Your task to perform on an android device: Show me popular games on the Play Store Image 0: 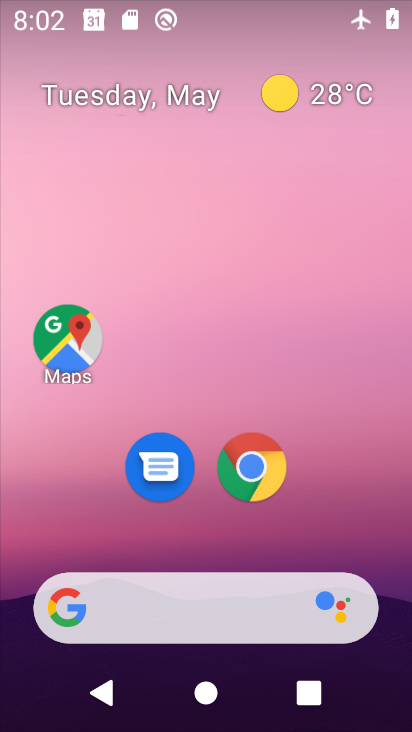
Step 0: drag from (384, 678) to (158, 73)
Your task to perform on an android device: Show me popular games on the Play Store Image 1: 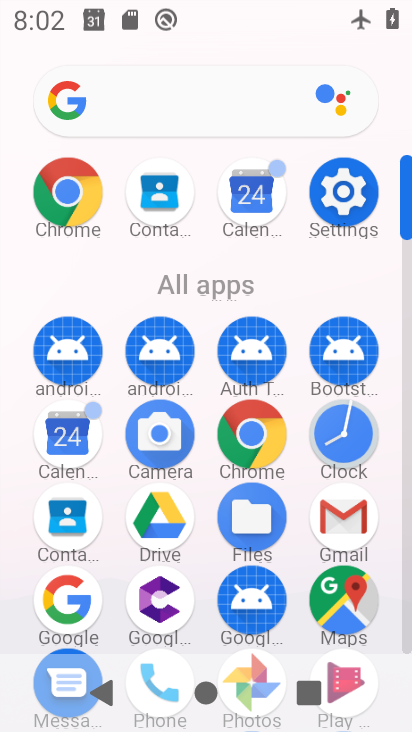
Step 1: drag from (202, 617) to (142, 338)
Your task to perform on an android device: Show me popular games on the Play Store Image 2: 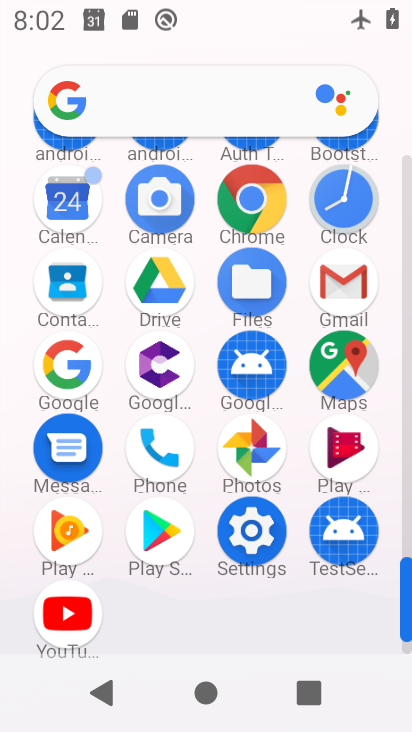
Step 2: click (176, 535)
Your task to perform on an android device: Show me popular games on the Play Store Image 3: 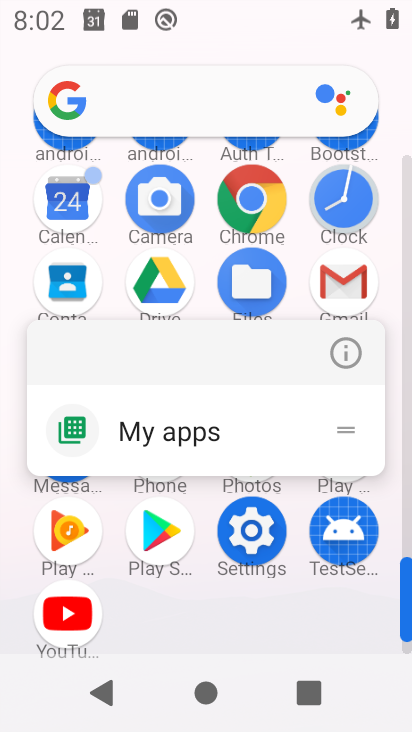
Step 3: click (137, 536)
Your task to perform on an android device: Show me popular games on the Play Store Image 4: 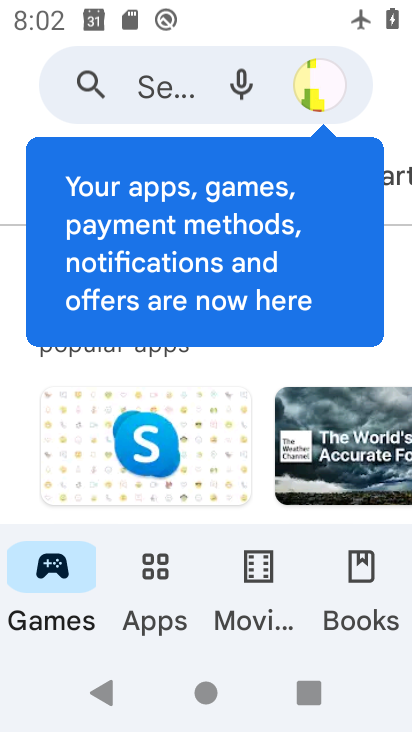
Step 4: click (164, 89)
Your task to perform on an android device: Show me popular games on the Play Store Image 5: 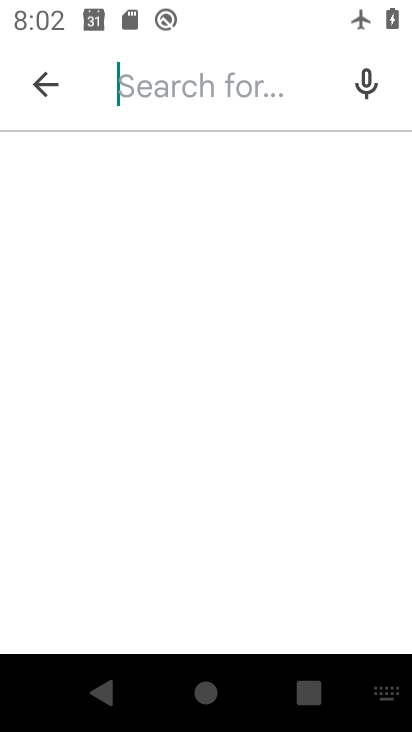
Step 5: type "popular games"
Your task to perform on an android device: Show me popular games on the Play Store Image 6: 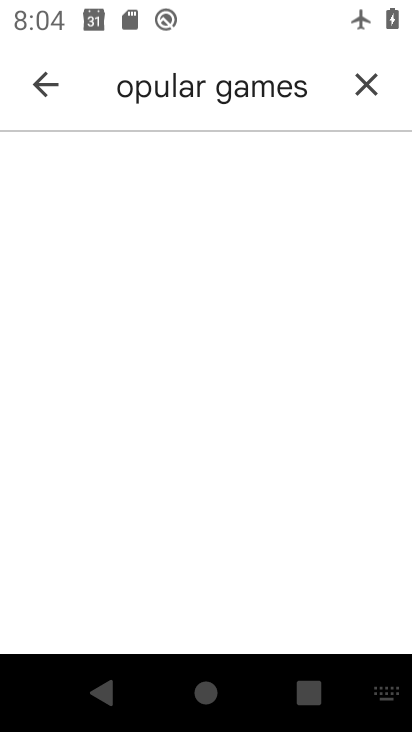
Step 6: task complete